Your task to perform on an android device: check android version Image 0: 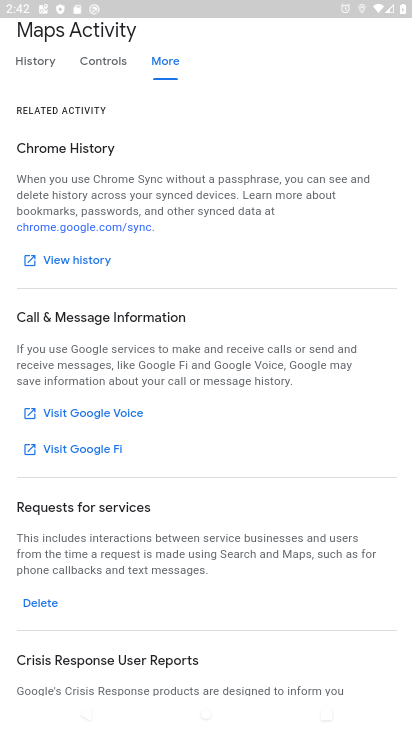
Step 0: press home button
Your task to perform on an android device: check android version Image 1: 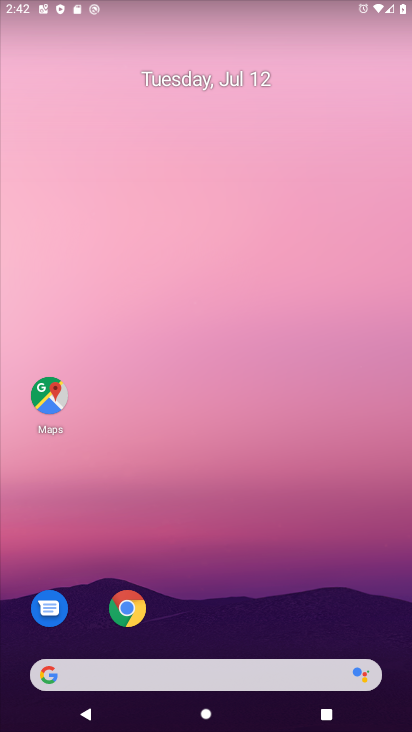
Step 1: drag from (229, 628) to (197, 97)
Your task to perform on an android device: check android version Image 2: 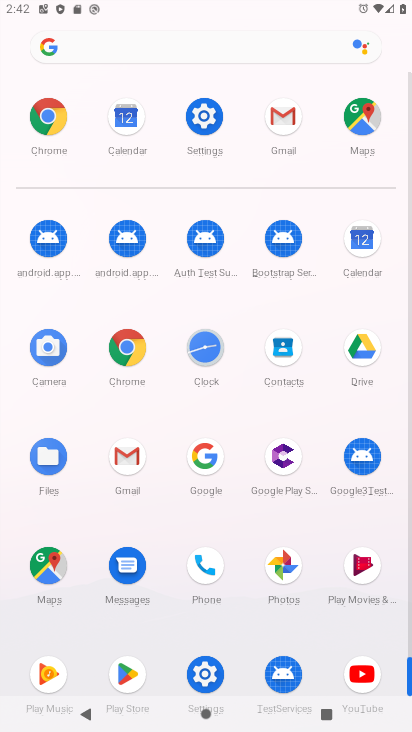
Step 2: click (199, 109)
Your task to perform on an android device: check android version Image 3: 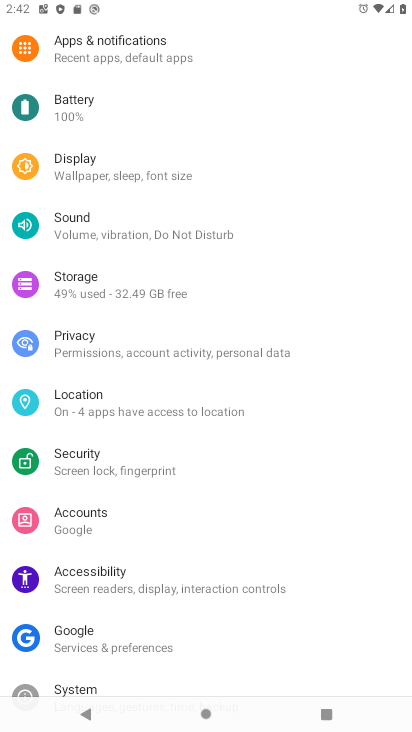
Step 3: drag from (183, 563) to (206, 114)
Your task to perform on an android device: check android version Image 4: 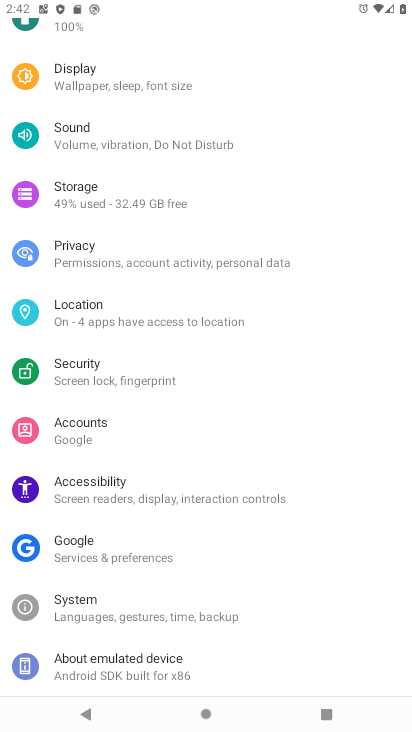
Step 4: click (126, 673)
Your task to perform on an android device: check android version Image 5: 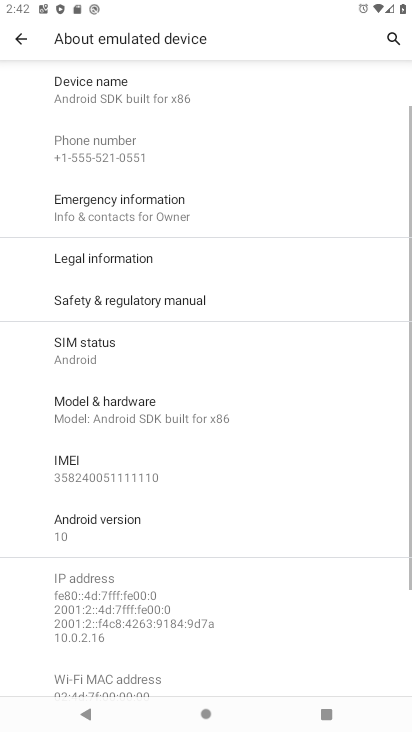
Step 5: click (130, 521)
Your task to perform on an android device: check android version Image 6: 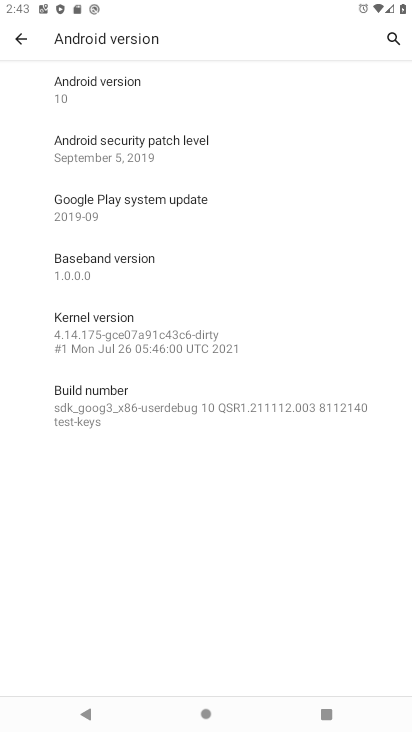
Step 6: task complete